Your task to perform on an android device: empty trash in google photos Image 0: 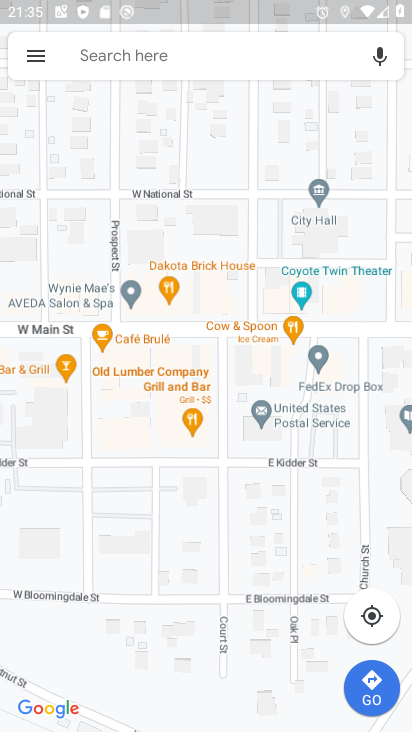
Step 0: press home button
Your task to perform on an android device: empty trash in google photos Image 1: 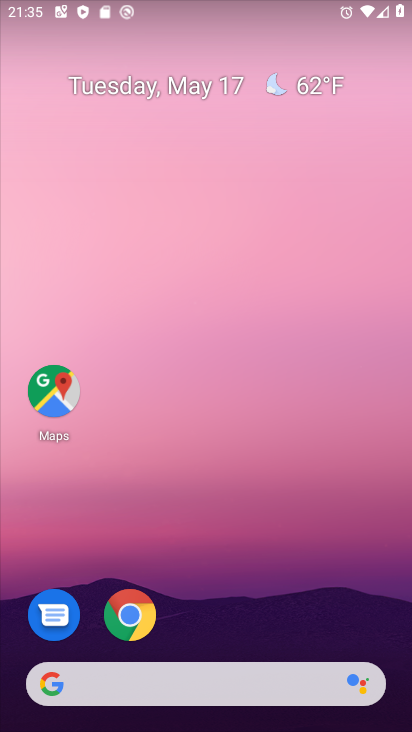
Step 1: drag from (223, 540) to (189, 7)
Your task to perform on an android device: empty trash in google photos Image 2: 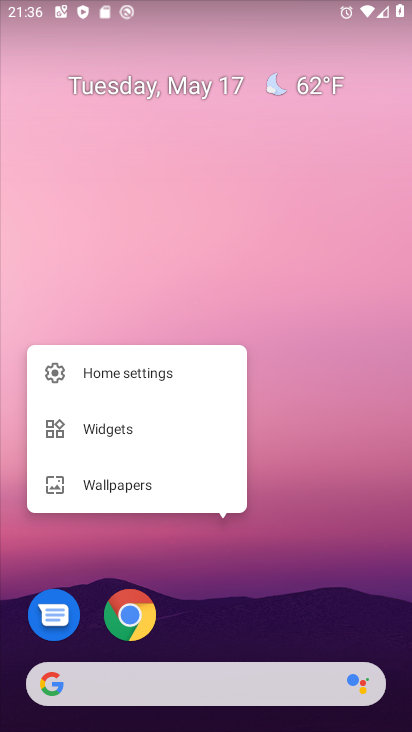
Step 2: drag from (337, 532) to (75, 28)
Your task to perform on an android device: empty trash in google photos Image 3: 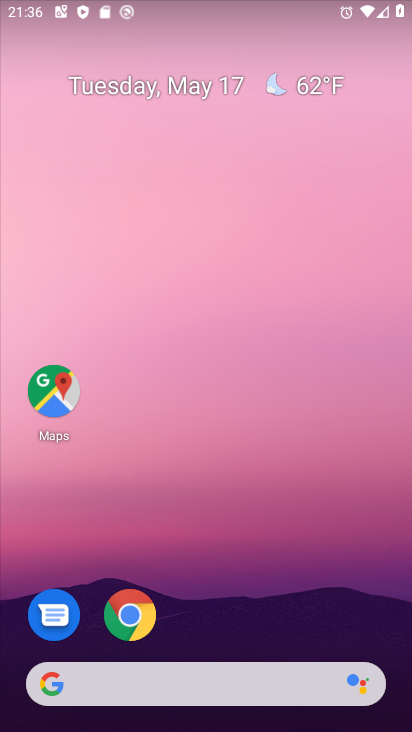
Step 3: drag from (294, 524) to (169, 7)
Your task to perform on an android device: empty trash in google photos Image 4: 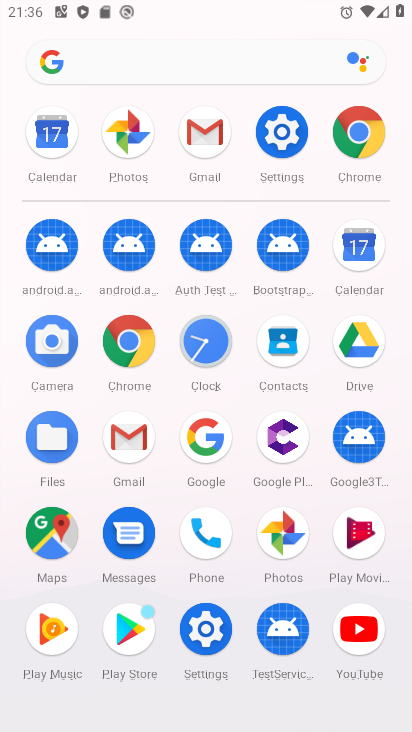
Step 4: click (297, 543)
Your task to perform on an android device: empty trash in google photos Image 5: 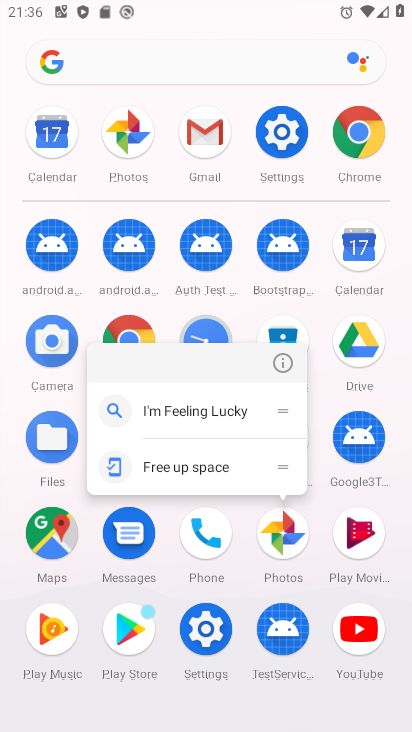
Step 5: click (297, 541)
Your task to perform on an android device: empty trash in google photos Image 6: 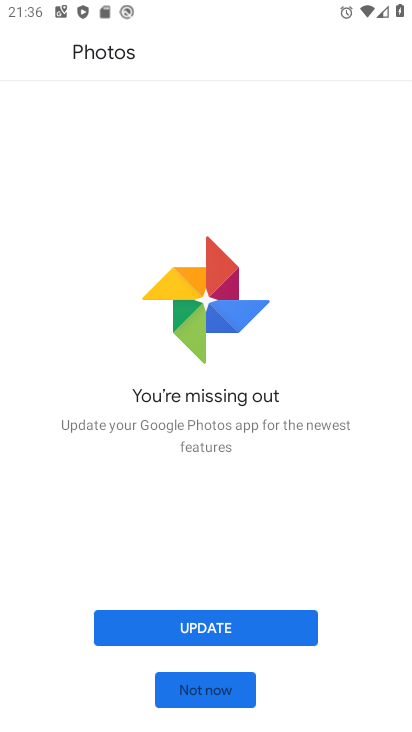
Step 6: click (226, 616)
Your task to perform on an android device: empty trash in google photos Image 7: 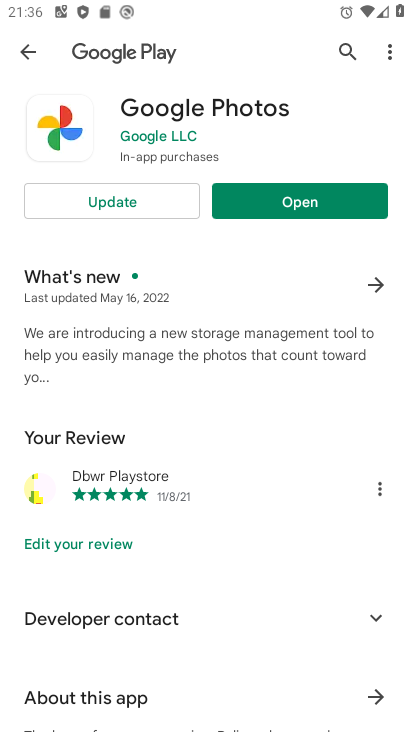
Step 7: click (113, 201)
Your task to perform on an android device: empty trash in google photos Image 8: 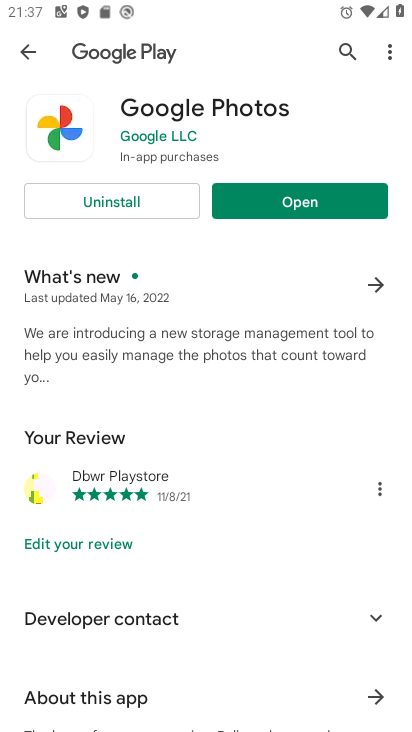
Step 8: click (245, 202)
Your task to perform on an android device: empty trash in google photos Image 9: 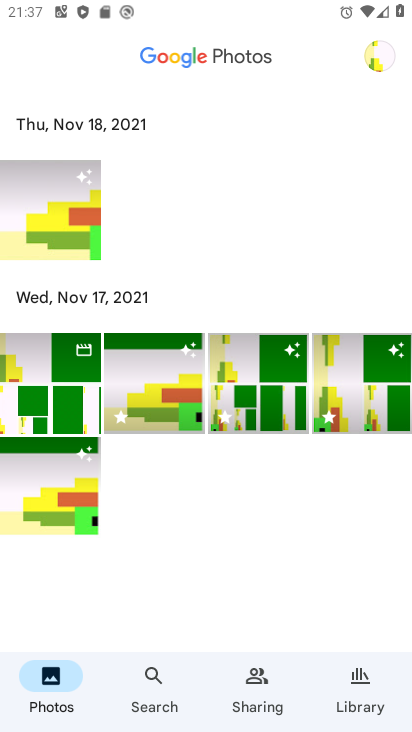
Step 9: click (371, 51)
Your task to perform on an android device: empty trash in google photos Image 10: 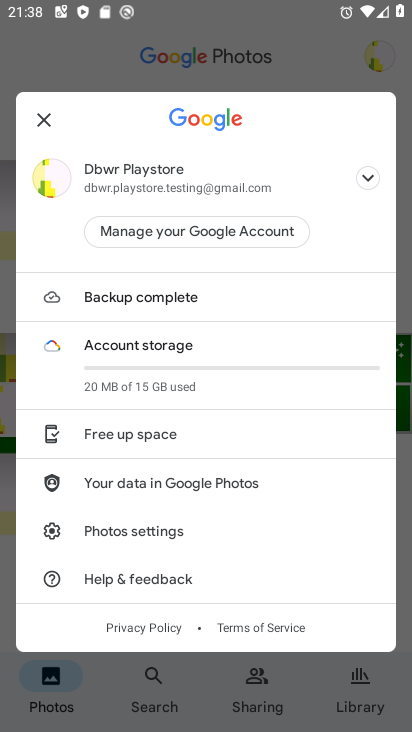
Step 10: click (143, 537)
Your task to perform on an android device: empty trash in google photos Image 11: 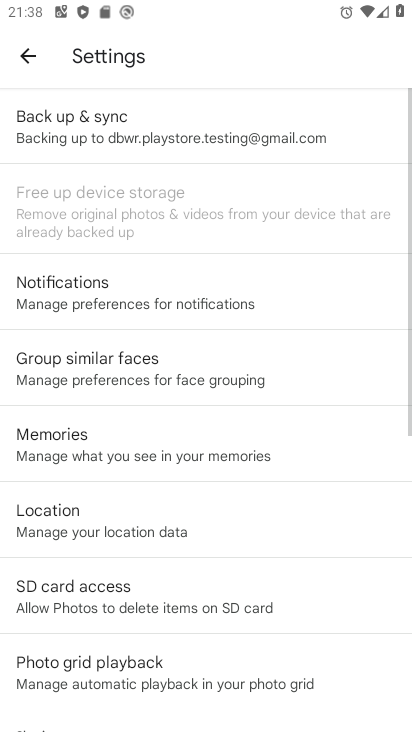
Step 11: click (108, 141)
Your task to perform on an android device: empty trash in google photos Image 12: 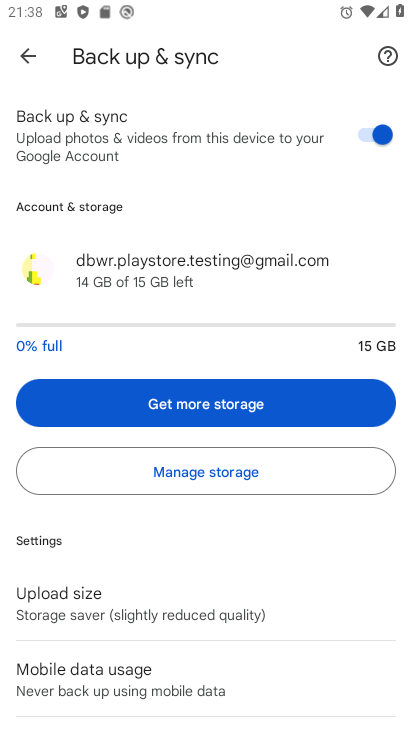
Step 12: click (34, 53)
Your task to perform on an android device: empty trash in google photos Image 13: 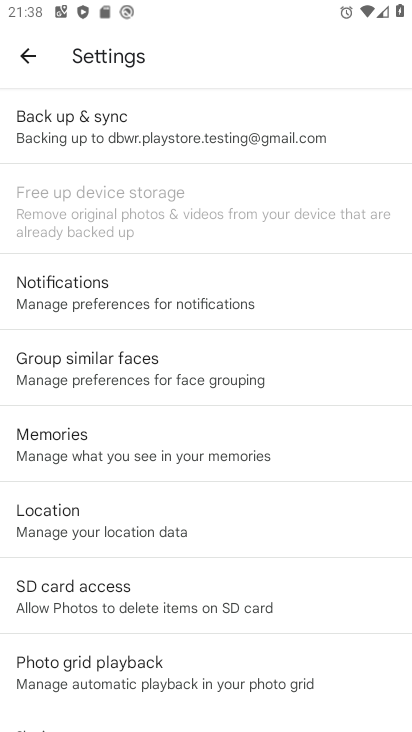
Step 13: click (17, 50)
Your task to perform on an android device: empty trash in google photos Image 14: 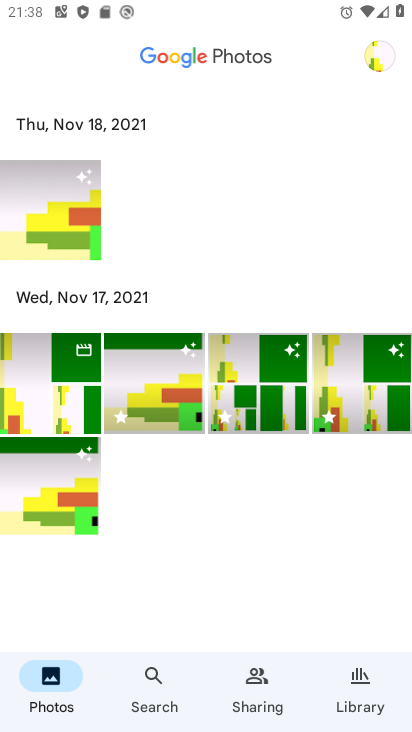
Step 14: click (379, 702)
Your task to perform on an android device: empty trash in google photos Image 15: 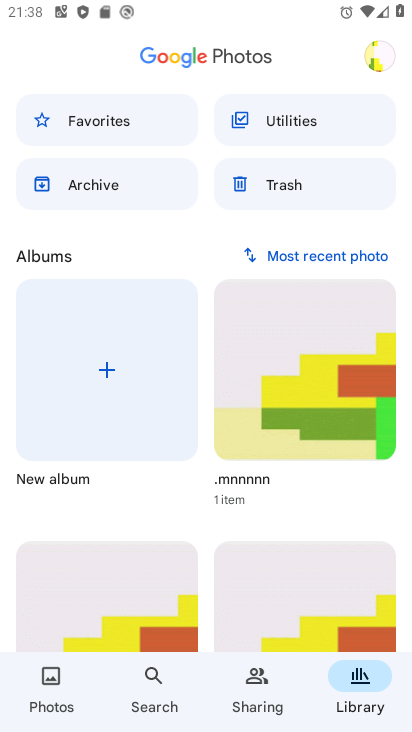
Step 15: click (241, 188)
Your task to perform on an android device: empty trash in google photos Image 16: 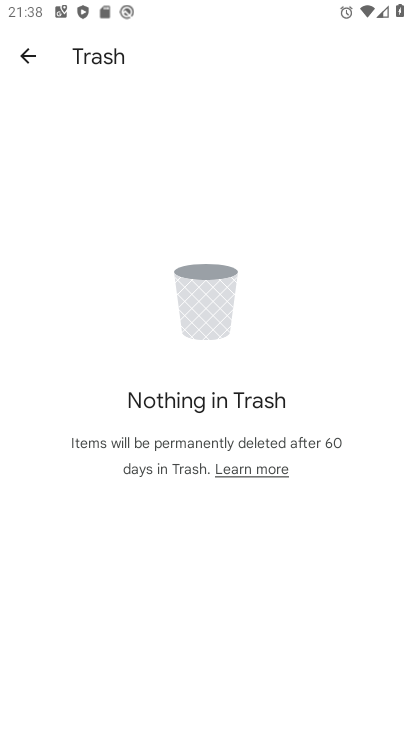
Step 16: task complete